Your task to perform on an android device: Do I have any events tomorrow? Image 0: 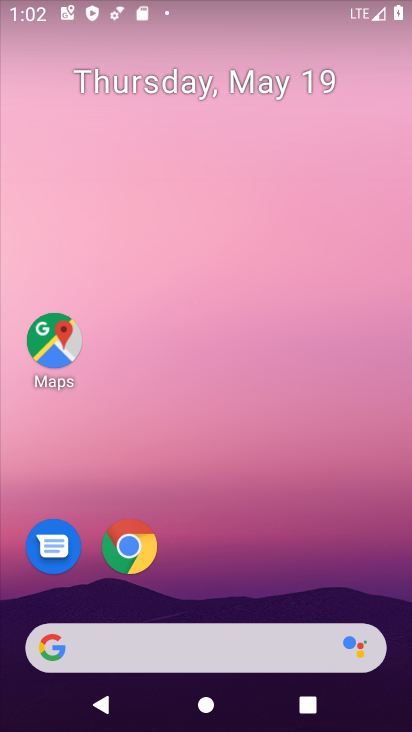
Step 0: click (124, 86)
Your task to perform on an android device: Do I have any events tomorrow? Image 1: 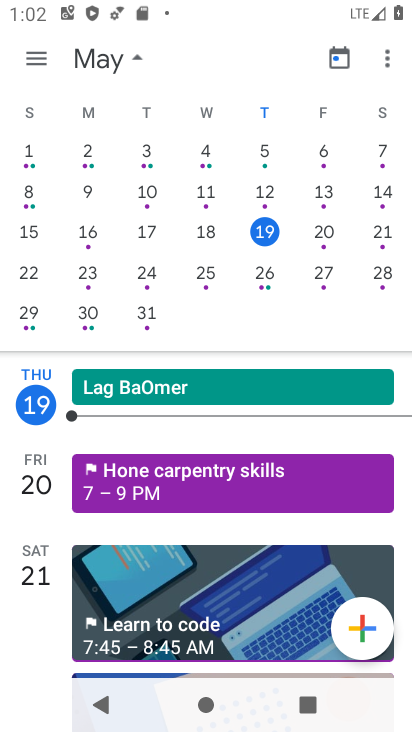
Step 1: click (327, 240)
Your task to perform on an android device: Do I have any events tomorrow? Image 2: 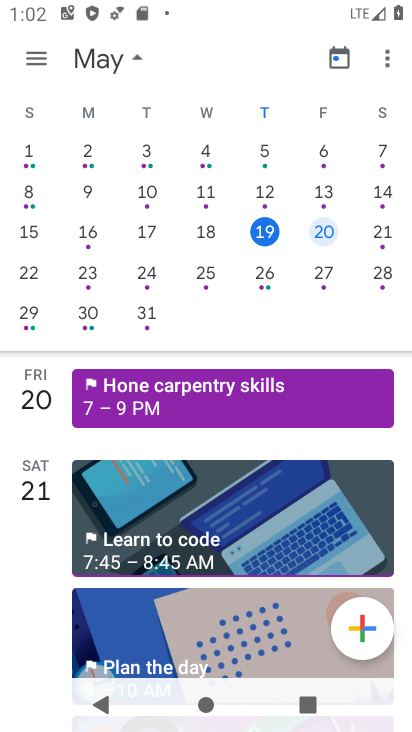
Step 2: click (205, 381)
Your task to perform on an android device: Do I have any events tomorrow? Image 3: 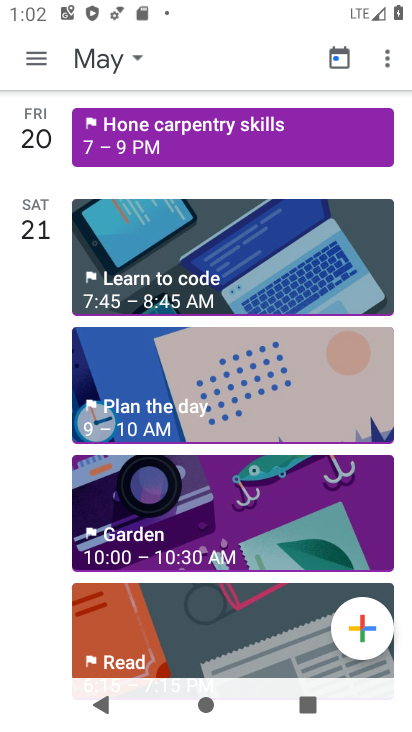
Step 3: task complete